Your task to perform on an android device: change notifications settings Image 0: 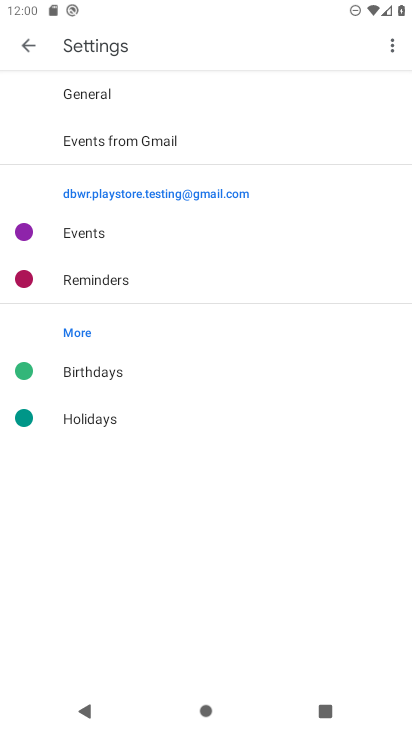
Step 0: press home button
Your task to perform on an android device: change notifications settings Image 1: 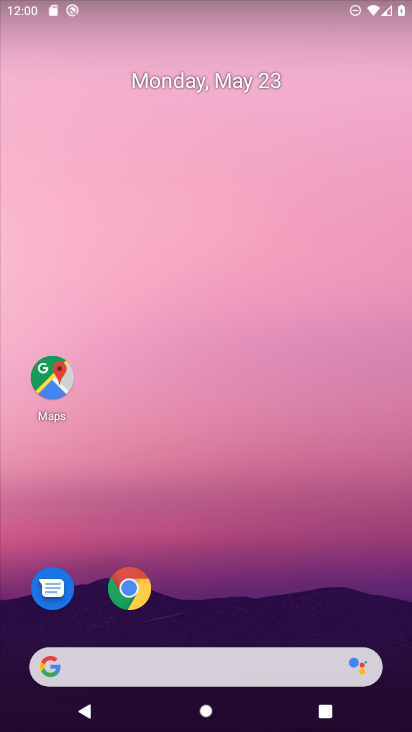
Step 1: drag from (183, 658) to (218, 213)
Your task to perform on an android device: change notifications settings Image 2: 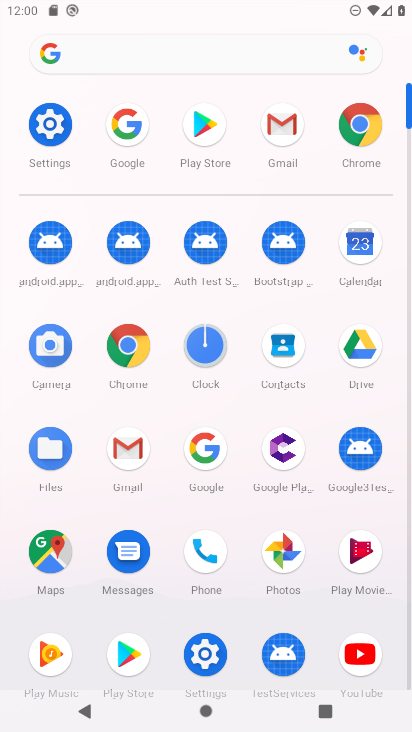
Step 2: click (53, 127)
Your task to perform on an android device: change notifications settings Image 3: 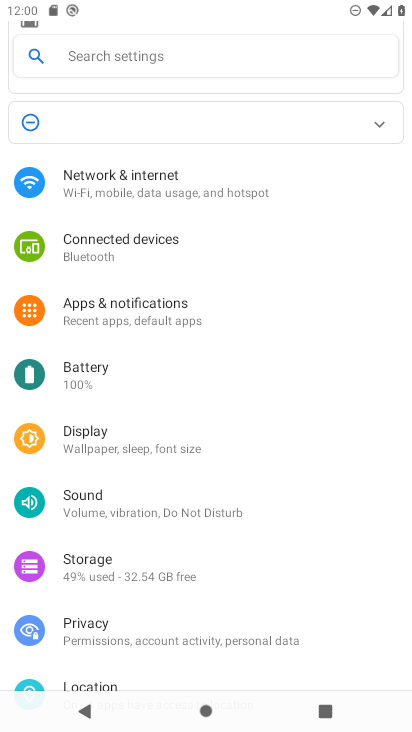
Step 3: click (162, 314)
Your task to perform on an android device: change notifications settings Image 4: 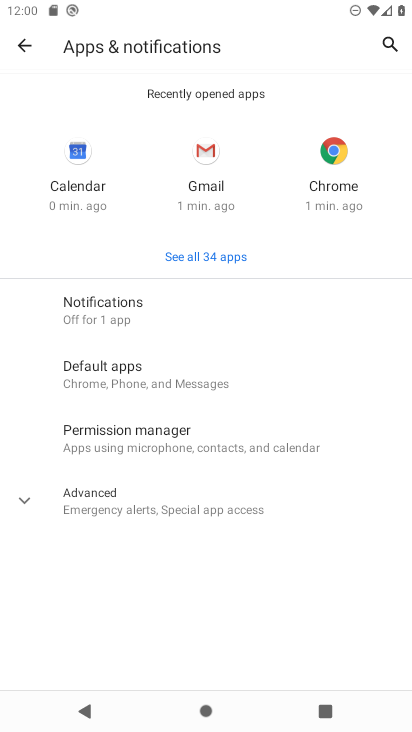
Step 4: click (146, 317)
Your task to perform on an android device: change notifications settings Image 5: 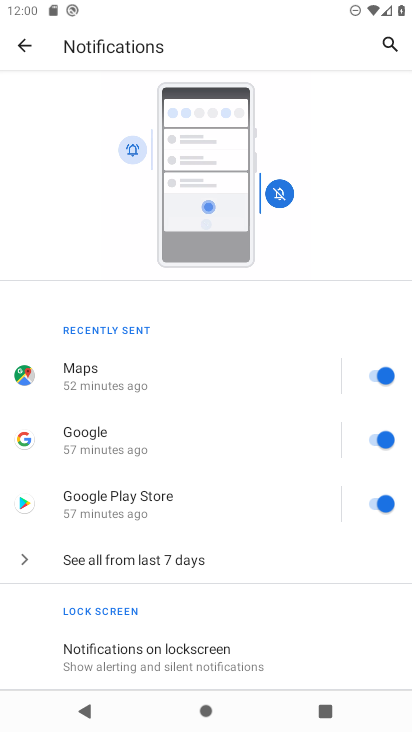
Step 5: click (374, 376)
Your task to perform on an android device: change notifications settings Image 6: 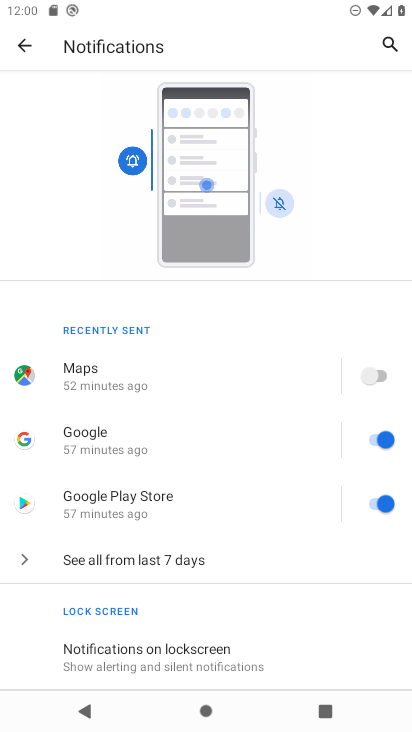
Step 6: click (378, 443)
Your task to perform on an android device: change notifications settings Image 7: 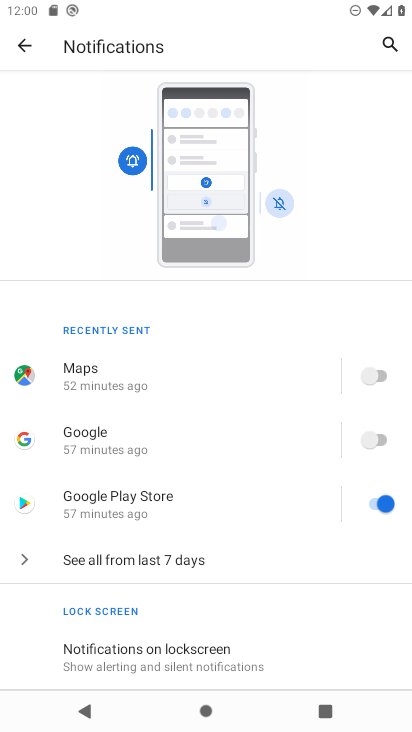
Step 7: click (383, 509)
Your task to perform on an android device: change notifications settings Image 8: 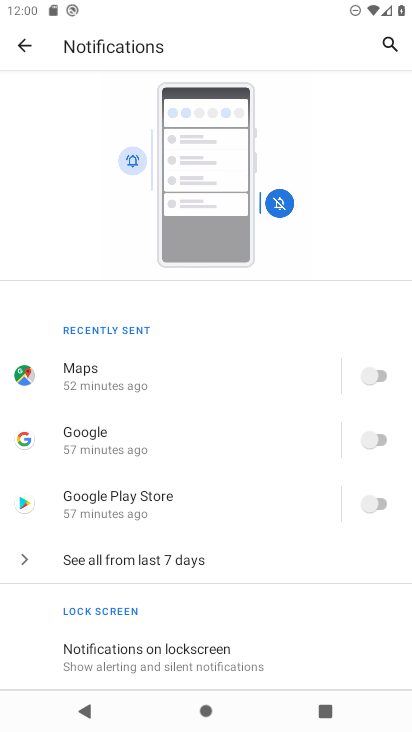
Step 8: click (187, 565)
Your task to perform on an android device: change notifications settings Image 9: 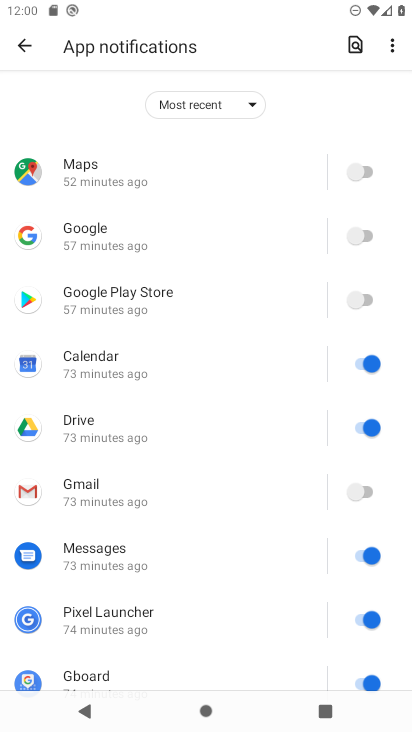
Step 9: click (359, 425)
Your task to perform on an android device: change notifications settings Image 10: 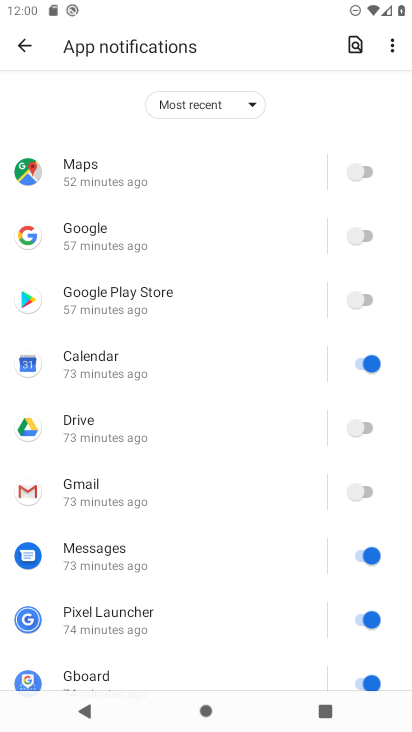
Step 10: click (365, 357)
Your task to perform on an android device: change notifications settings Image 11: 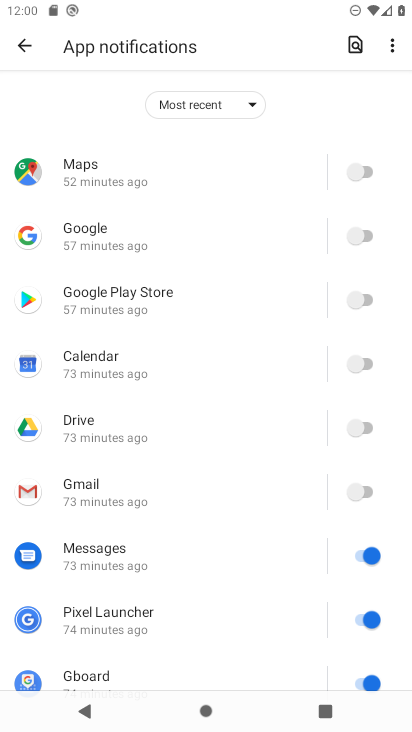
Step 11: click (362, 556)
Your task to perform on an android device: change notifications settings Image 12: 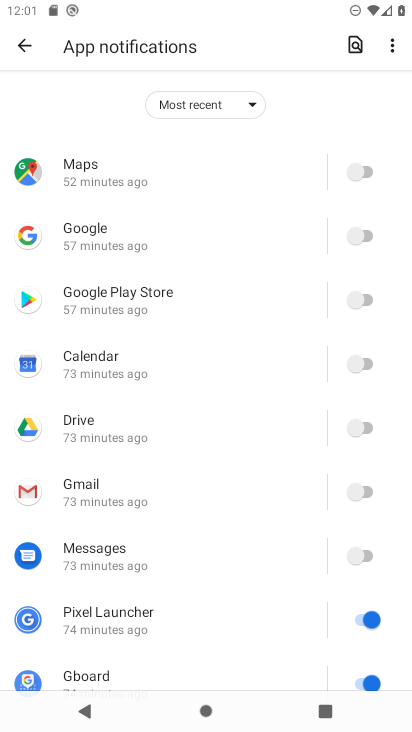
Step 12: click (368, 626)
Your task to perform on an android device: change notifications settings Image 13: 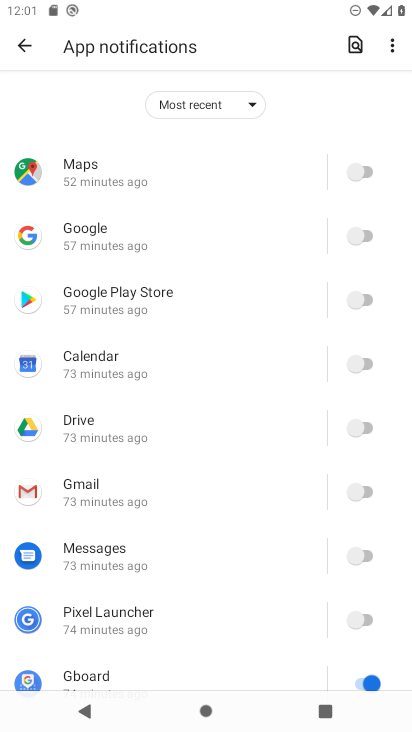
Step 13: click (365, 680)
Your task to perform on an android device: change notifications settings Image 14: 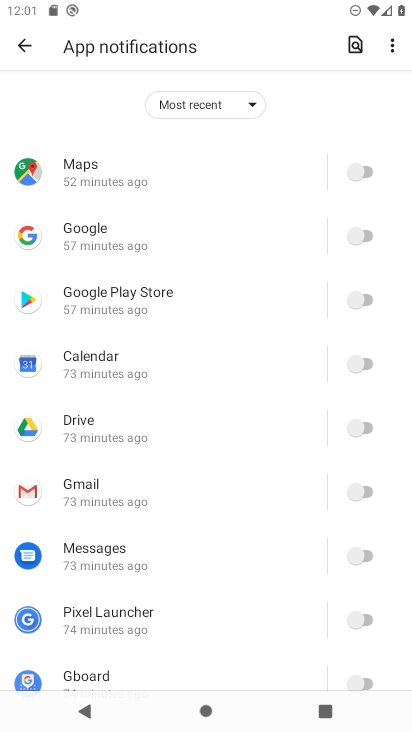
Step 14: click (365, 680)
Your task to perform on an android device: change notifications settings Image 15: 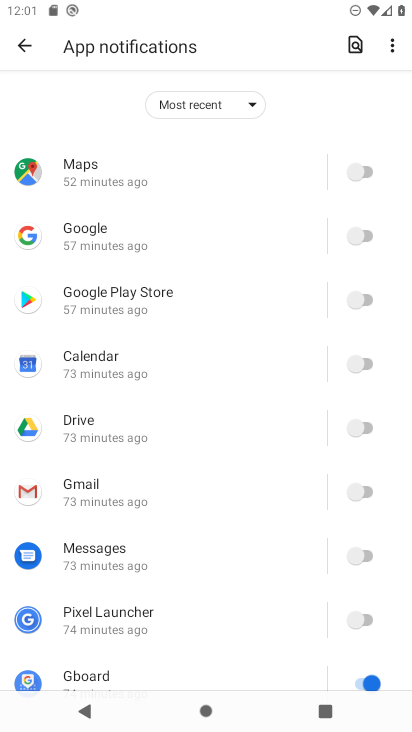
Step 15: drag from (332, 672) to (320, 310)
Your task to perform on an android device: change notifications settings Image 16: 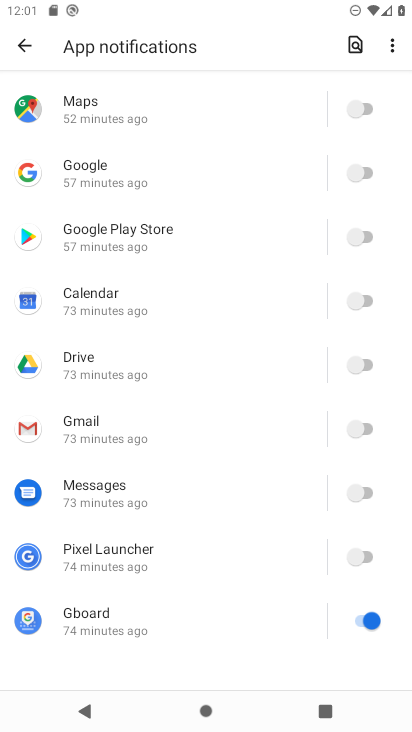
Step 16: click (360, 619)
Your task to perform on an android device: change notifications settings Image 17: 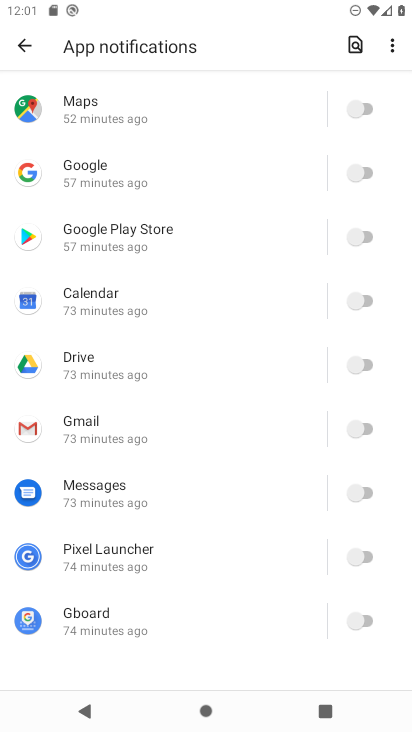
Step 17: task complete